Your task to perform on an android device: stop showing notifications on the lock screen Image 0: 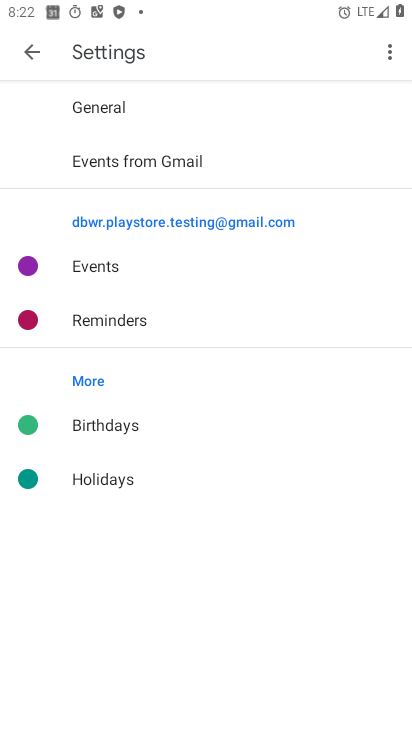
Step 0: press home button
Your task to perform on an android device: stop showing notifications on the lock screen Image 1: 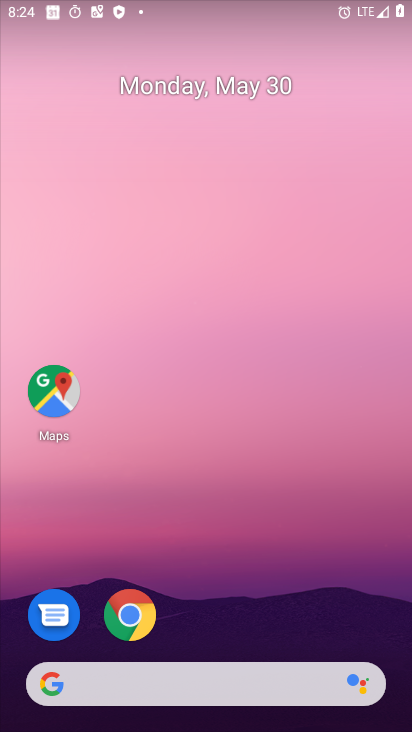
Step 1: drag from (238, 549) to (298, 17)
Your task to perform on an android device: stop showing notifications on the lock screen Image 2: 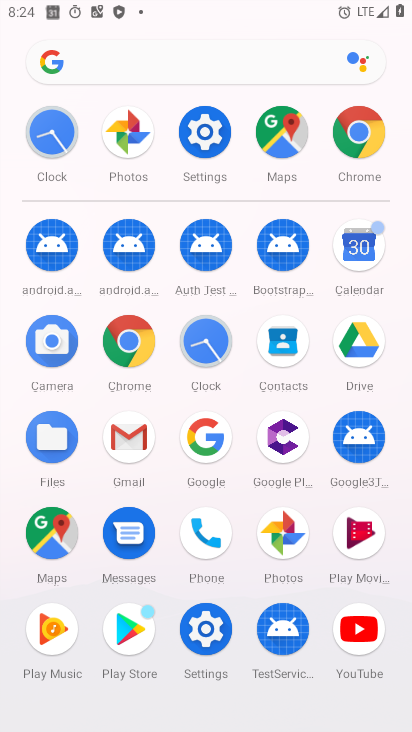
Step 2: click (212, 116)
Your task to perform on an android device: stop showing notifications on the lock screen Image 3: 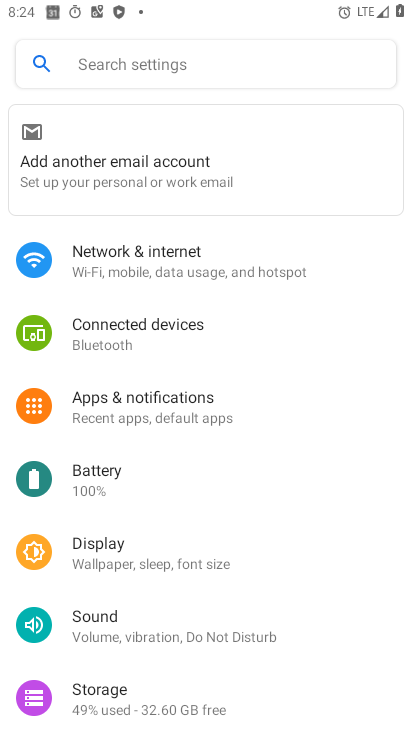
Step 3: click (159, 396)
Your task to perform on an android device: stop showing notifications on the lock screen Image 4: 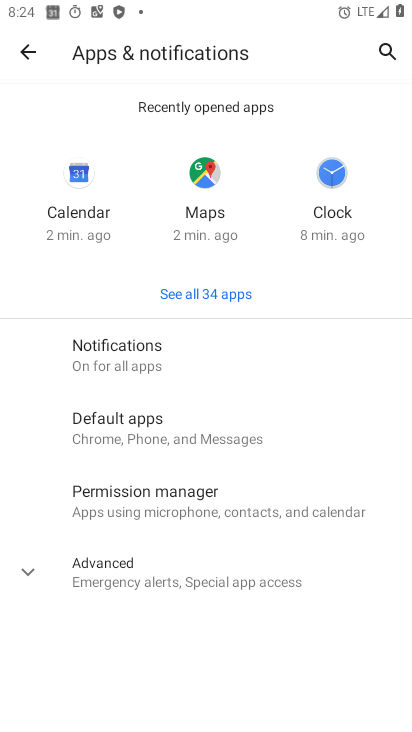
Step 4: click (151, 371)
Your task to perform on an android device: stop showing notifications on the lock screen Image 5: 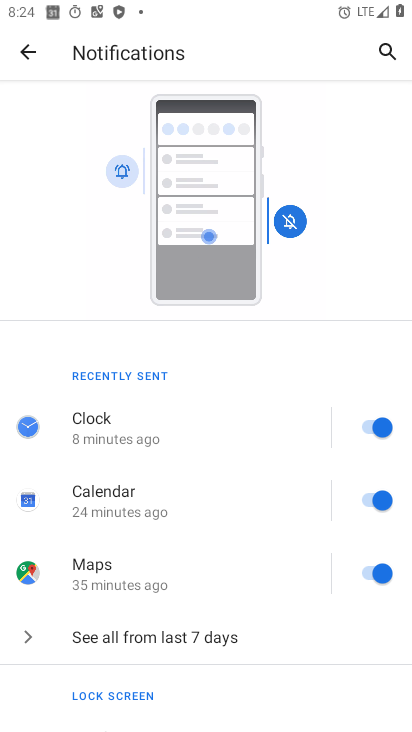
Step 5: drag from (190, 574) to (246, 211)
Your task to perform on an android device: stop showing notifications on the lock screen Image 6: 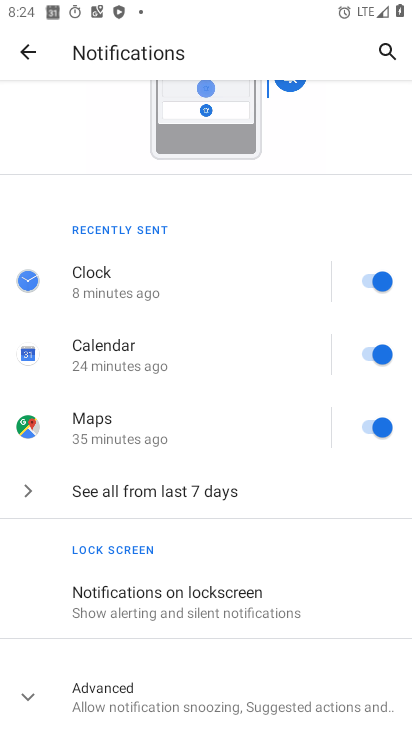
Step 6: click (152, 593)
Your task to perform on an android device: stop showing notifications on the lock screen Image 7: 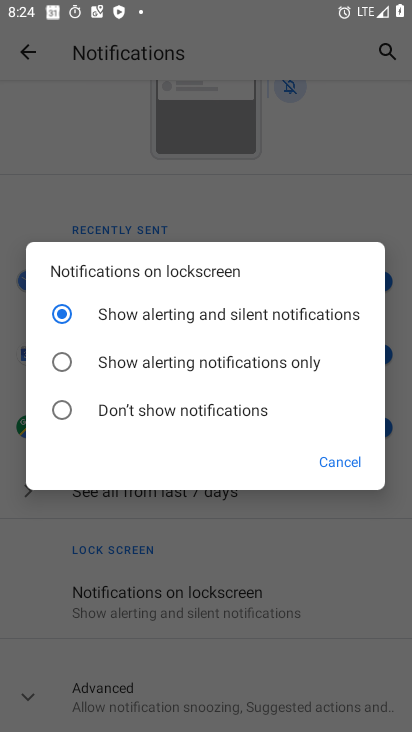
Step 7: click (157, 413)
Your task to perform on an android device: stop showing notifications on the lock screen Image 8: 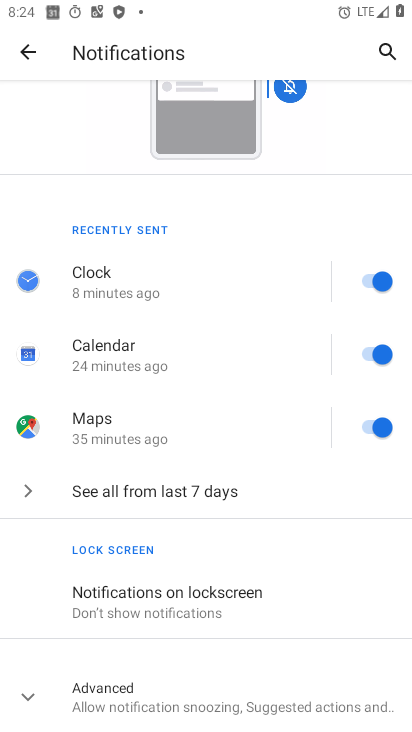
Step 8: task complete